Your task to perform on an android device: Go to Amazon Image 0: 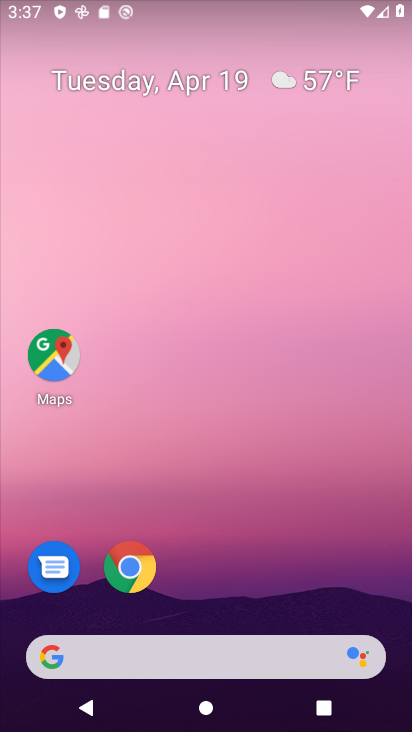
Step 0: drag from (360, 587) to (343, 214)
Your task to perform on an android device: Go to Amazon Image 1: 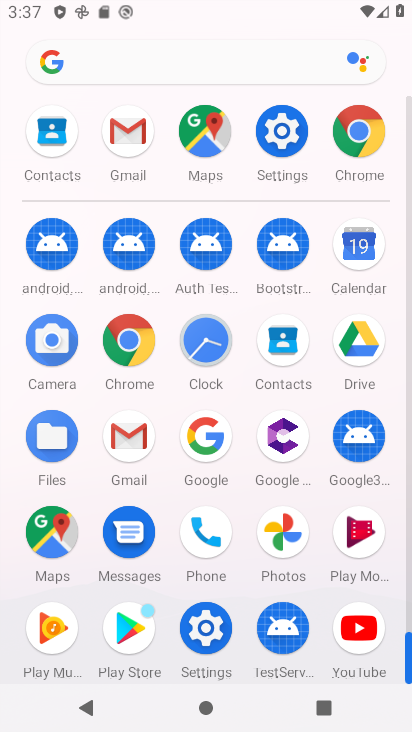
Step 1: click (128, 350)
Your task to perform on an android device: Go to Amazon Image 2: 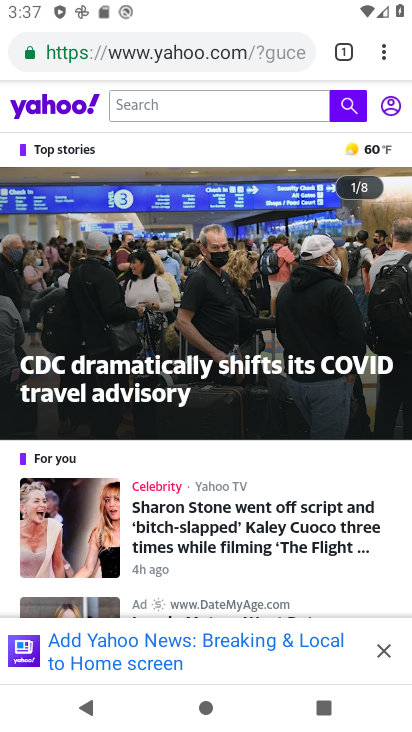
Step 2: press back button
Your task to perform on an android device: Go to Amazon Image 3: 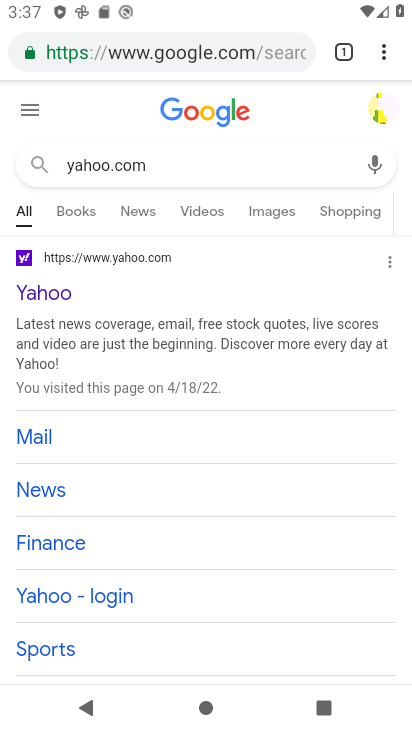
Step 3: press back button
Your task to perform on an android device: Go to Amazon Image 4: 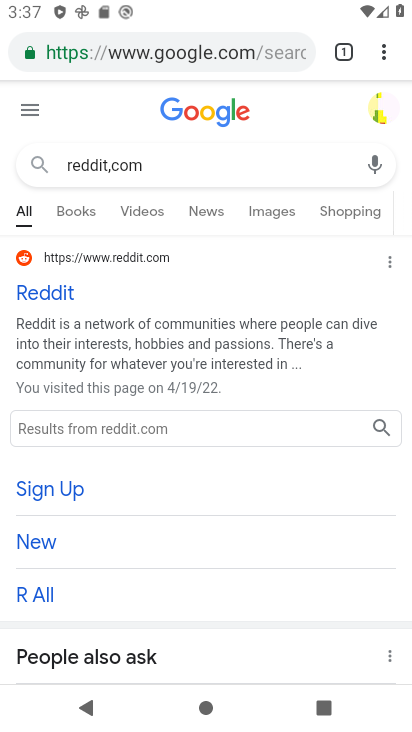
Step 4: press back button
Your task to perform on an android device: Go to Amazon Image 5: 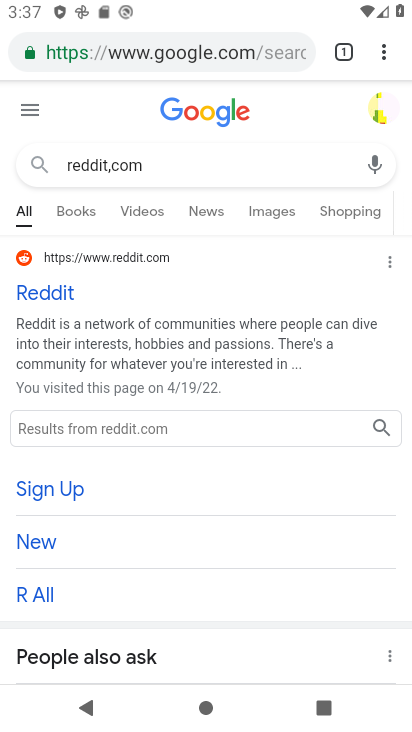
Step 5: click (164, 163)
Your task to perform on an android device: Go to Amazon Image 6: 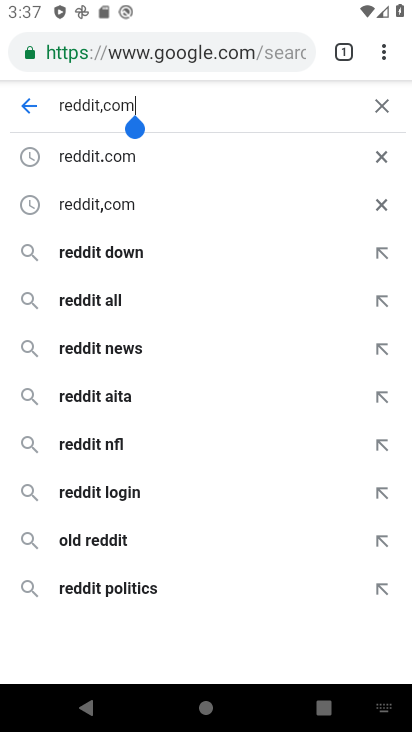
Step 6: click (382, 102)
Your task to perform on an android device: Go to Amazon Image 7: 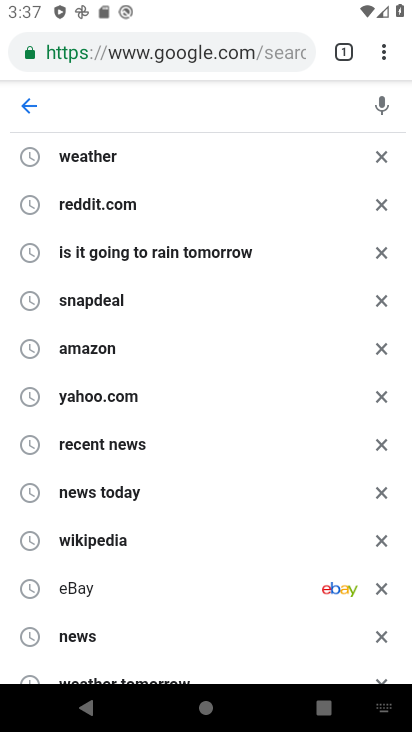
Step 7: type "amzoan"
Your task to perform on an android device: Go to Amazon Image 8: 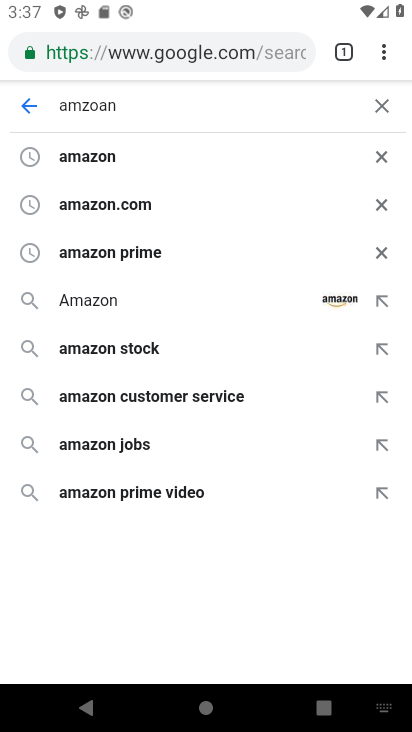
Step 8: click (83, 150)
Your task to perform on an android device: Go to Amazon Image 9: 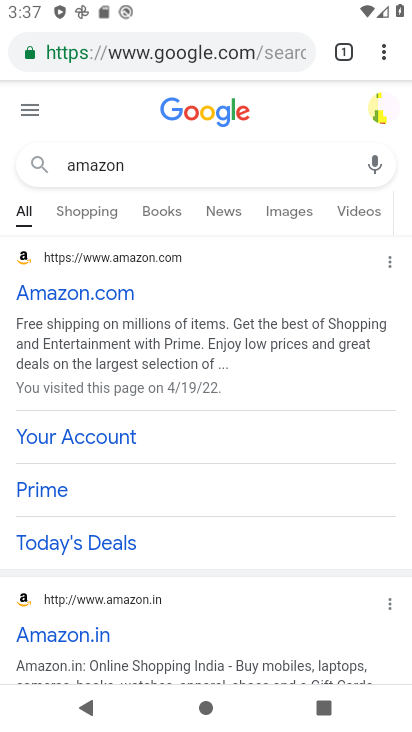
Step 9: click (75, 293)
Your task to perform on an android device: Go to Amazon Image 10: 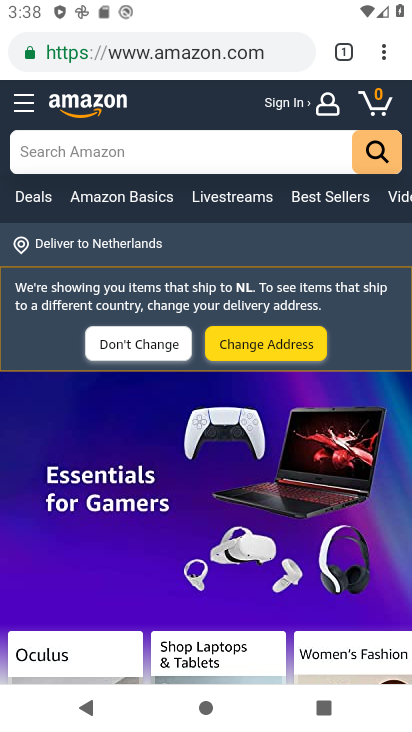
Step 10: task complete